Your task to perform on an android device: Open the Play Movies app and select the watchlist tab. Image 0: 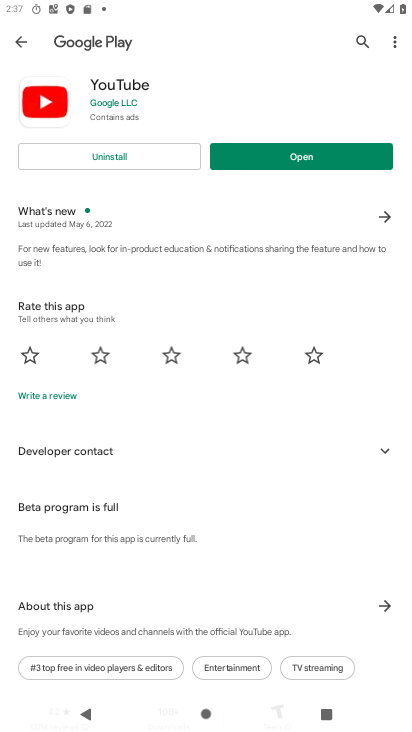
Step 0: press home button
Your task to perform on an android device: Open the Play Movies app and select the watchlist tab. Image 1: 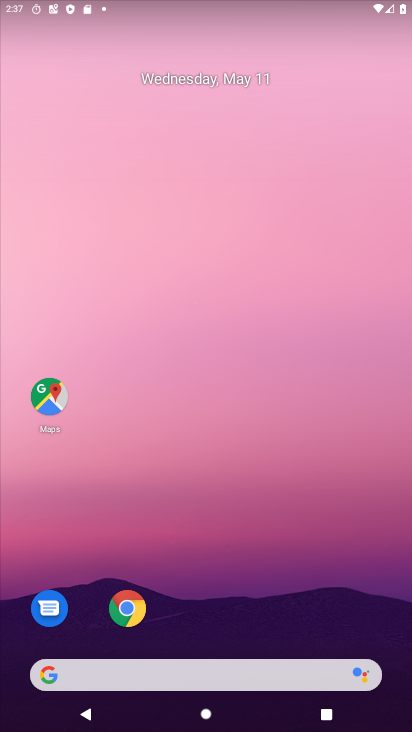
Step 1: drag from (292, 527) to (314, 78)
Your task to perform on an android device: Open the Play Movies app and select the watchlist tab. Image 2: 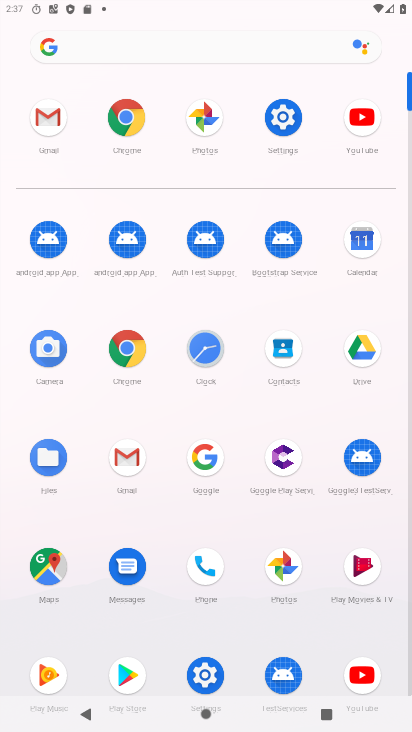
Step 2: click (354, 561)
Your task to perform on an android device: Open the Play Movies app and select the watchlist tab. Image 3: 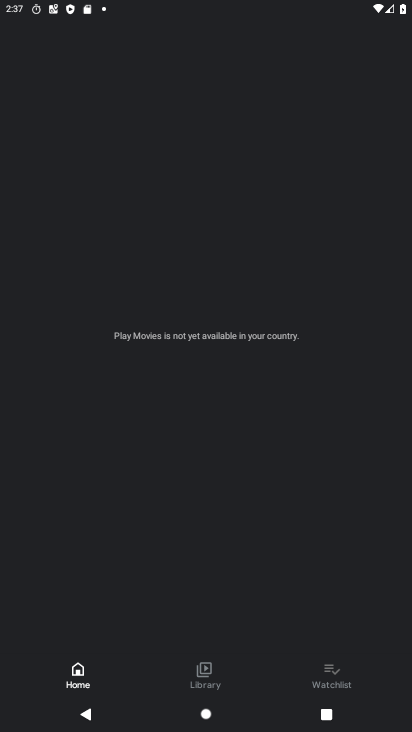
Step 3: click (328, 675)
Your task to perform on an android device: Open the Play Movies app and select the watchlist tab. Image 4: 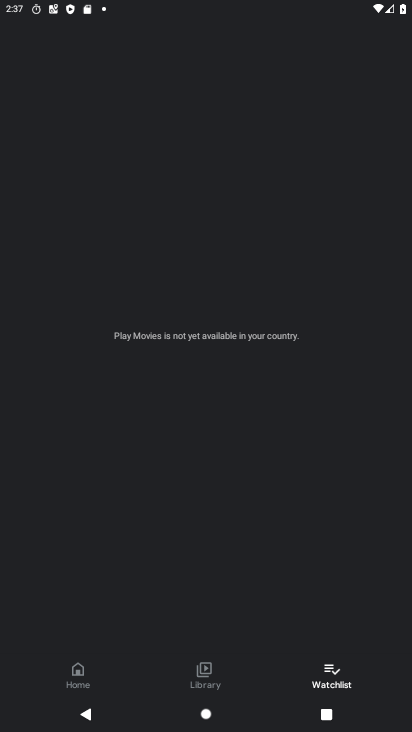
Step 4: task complete